Your task to perform on an android device: Go to Reddit.com Image 0: 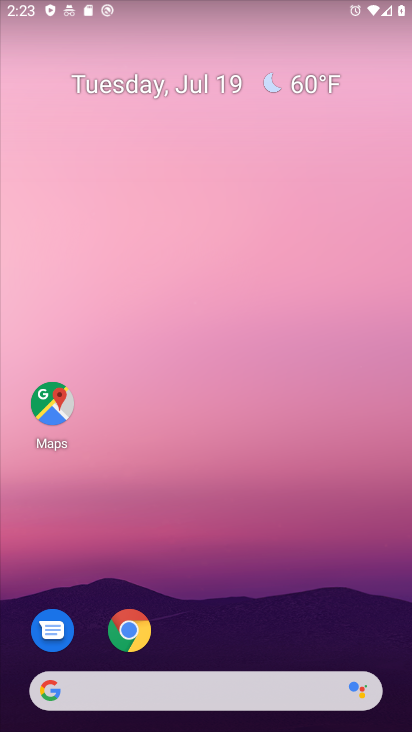
Step 0: drag from (270, 644) to (252, 300)
Your task to perform on an android device: Go to Reddit.com Image 1: 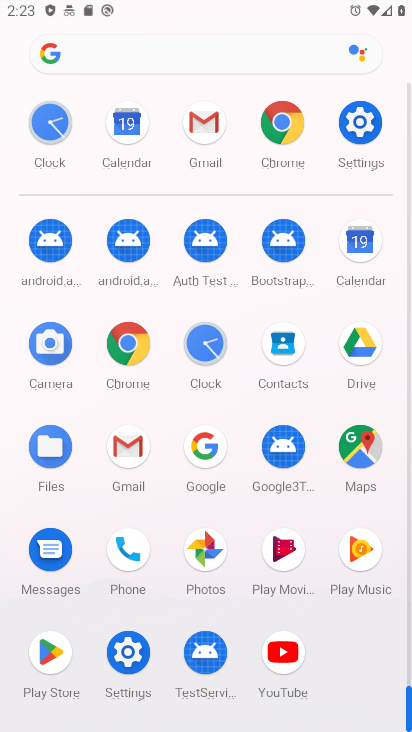
Step 1: click (284, 118)
Your task to perform on an android device: Go to Reddit.com Image 2: 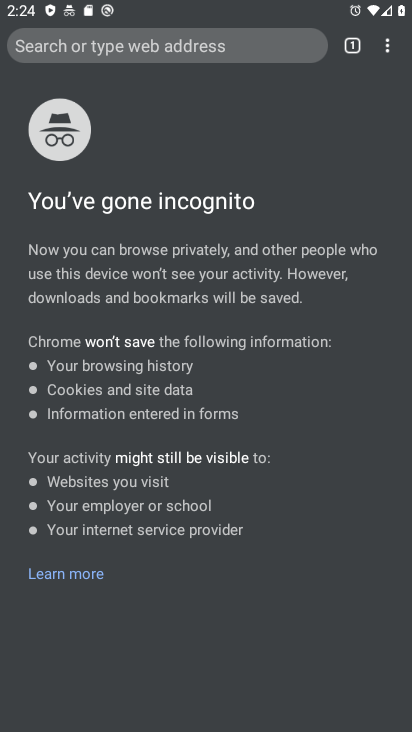
Step 2: click (390, 44)
Your task to perform on an android device: Go to Reddit.com Image 3: 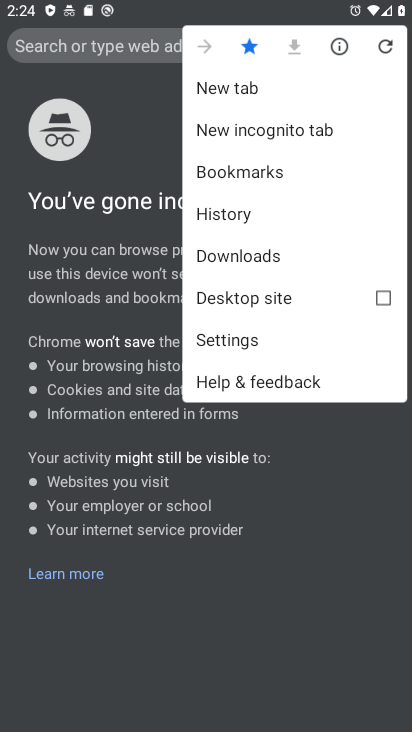
Step 3: click (240, 81)
Your task to perform on an android device: Go to Reddit.com Image 4: 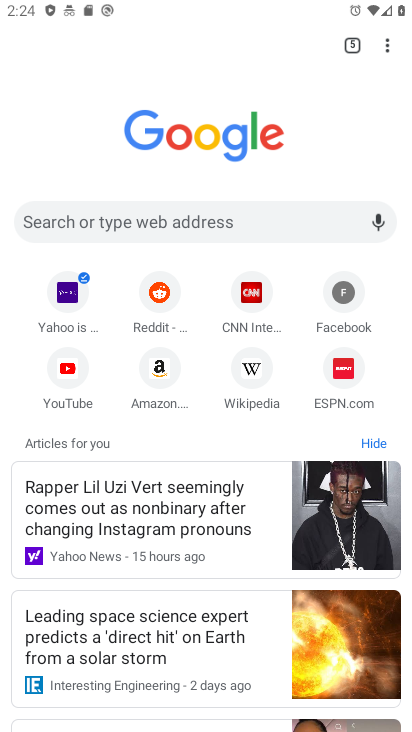
Step 4: click (74, 214)
Your task to perform on an android device: Go to Reddit.com Image 5: 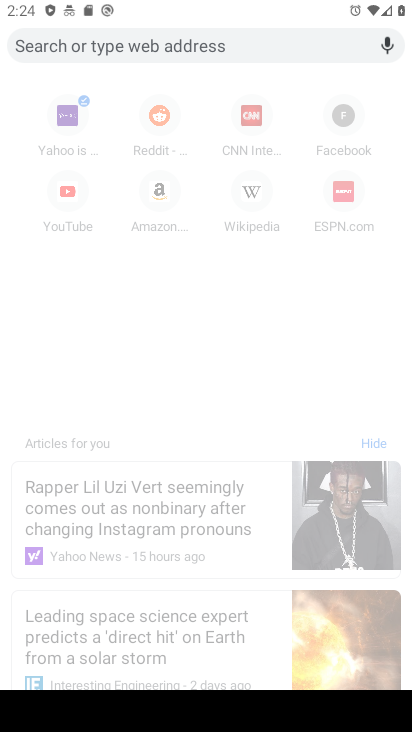
Step 5: click (178, 136)
Your task to perform on an android device: Go to Reddit.com Image 6: 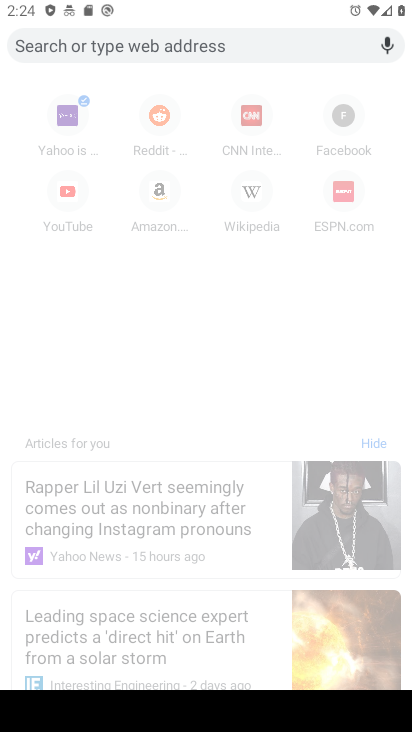
Step 6: click (156, 111)
Your task to perform on an android device: Go to Reddit.com Image 7: 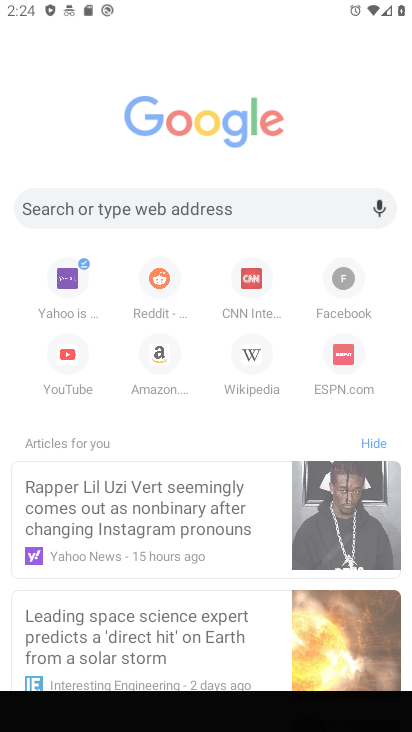
Step 7: click (156, 111)
Your task to perform on an android device: Go to Reddit.com Image 8: 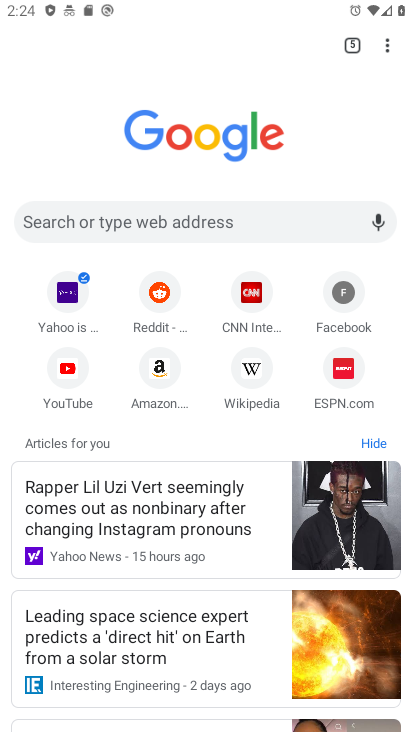
Step 8: click (156, 111)
Your task to perform on an android device: Go to Reddit.com Image 9: 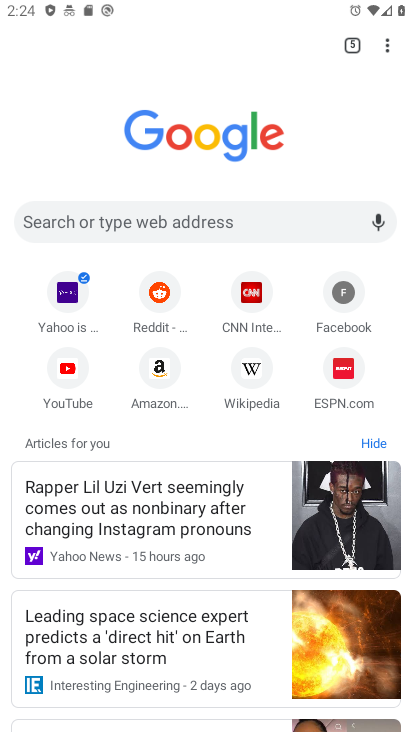
Step 9: click (155, 111)
Your task to perform on an android device: Go to Reddit.com Image 10: 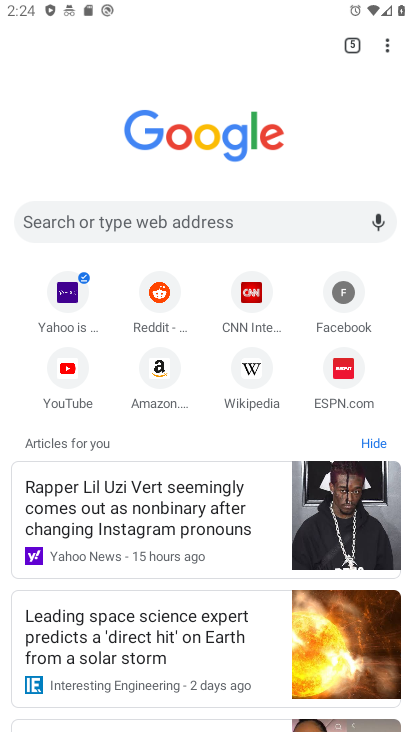
Step 10: click (168, 294)
Your task to perform on an android device: Go to Reddit.com Image 11: 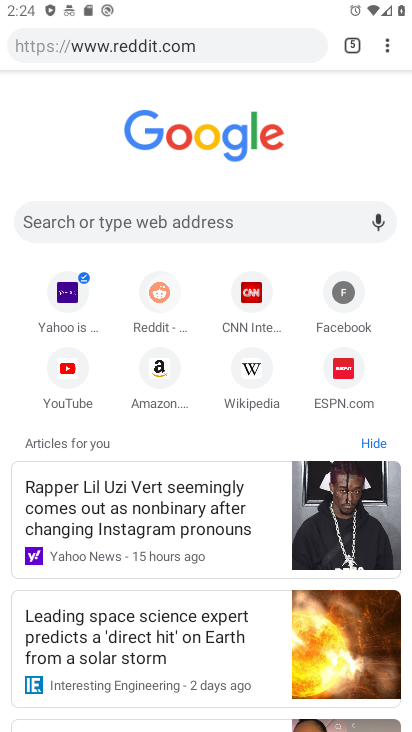
Step 11: click (167, 294)
Your task to perform on an android device: Go to Reddit.com Image 12: 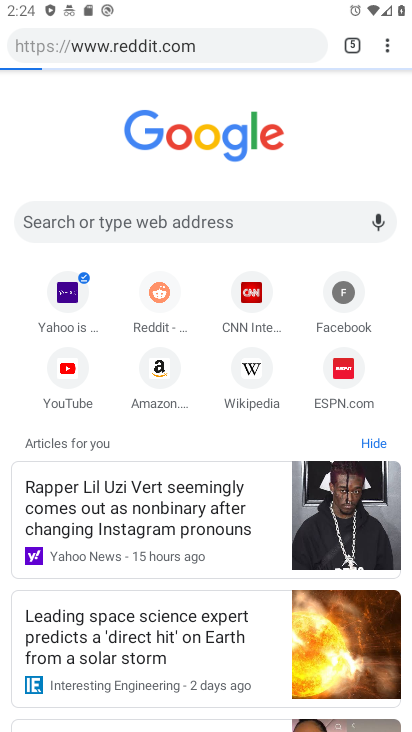
Step 12: click (167, 294)
Your task to perform on an android device: Go to Reddit.com Image 13: 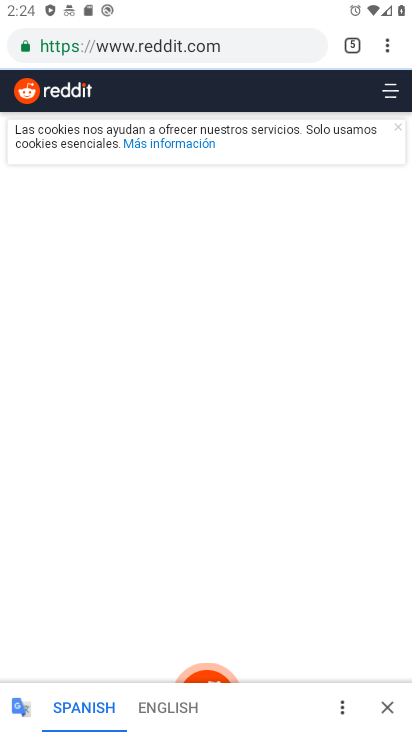
Step 13: task complete